Your task to perform on an android device: turn smart compose on in the gmail app Image 0: 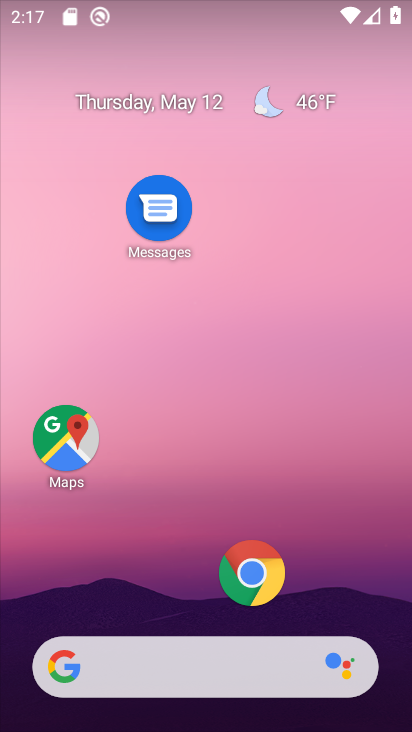
Step 0: click (222, 149)
Your task to perform on an android device: turn smart compose on in the gmail app Image 1: 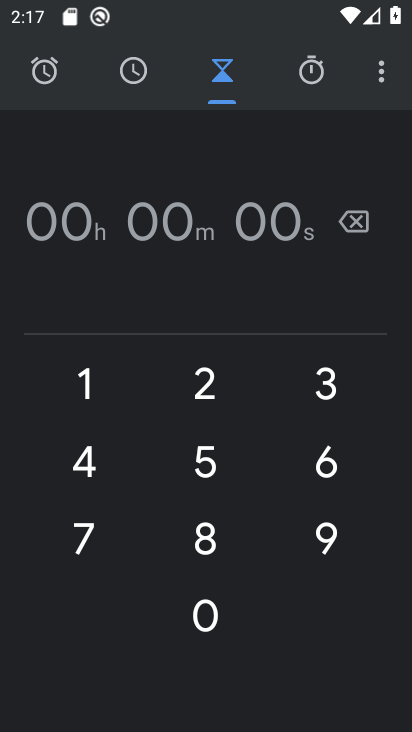
Step 1: press home button
Your task to perform on an android device: turn smart compose on in the gmail app Image 2: 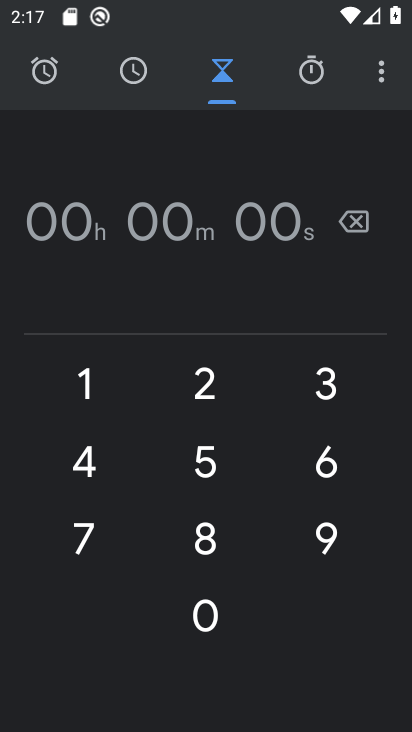
Step 2: press home button
Your task to perform on an android device: turn smart compose on in the gmail app Image 3: 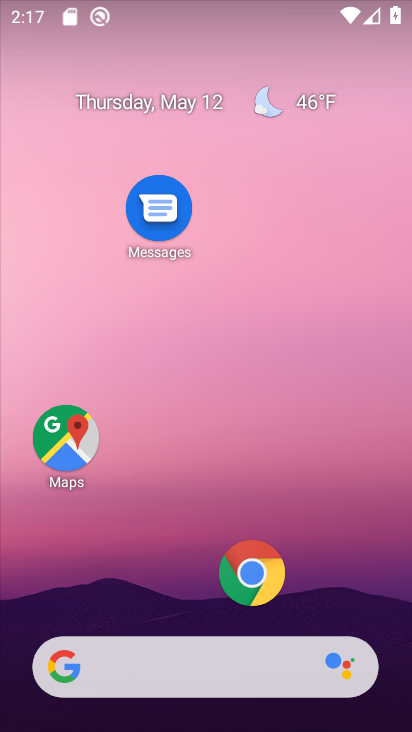
Step 3: drag from (208, 632) to (243, 93)
Your task to perform on an android device: turn smart compose on in the gmail app Image 4: 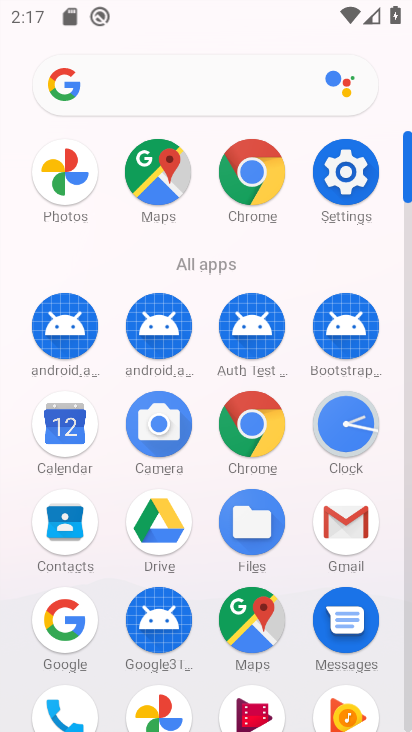
Step 4: click (340, 515)
Your task to perform on an android device: turn smart compose on in the gmail app Image 5: 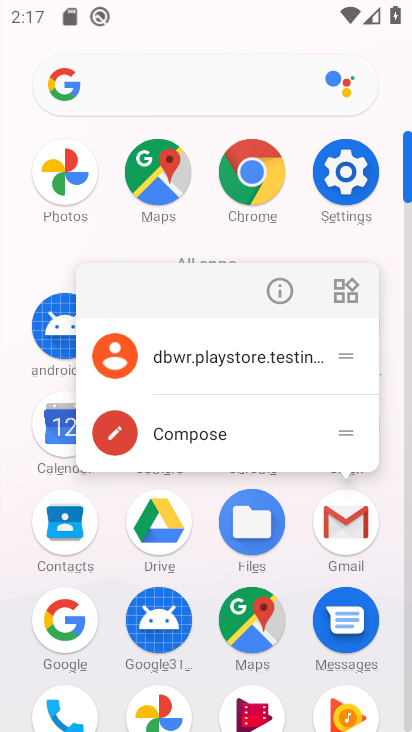
Step 5: click (280, 303)
Your task to perform on an android device: turn smart compose on in the gmail app Image 6: 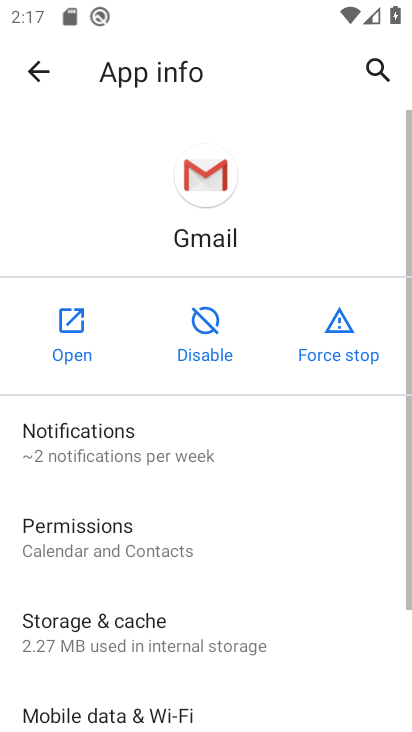
Step 6: click (73, 324)
Your task to perform on an android device: turn smart compose on in the gmail app Image 7: 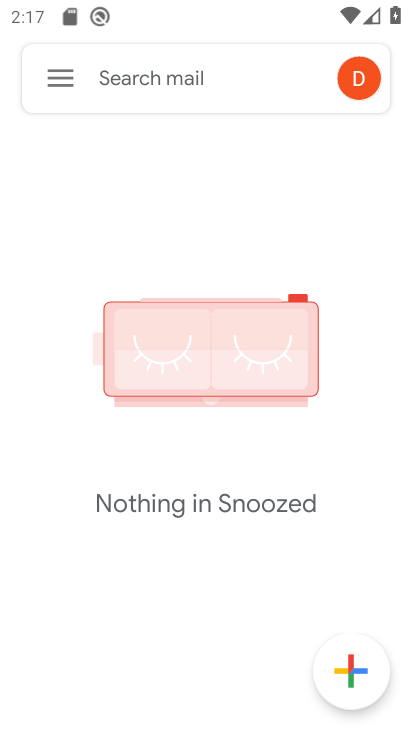
Step 7: click (63, 71)
Your task to perform on an android device: turn smart compose on in the gmail app Image 8: 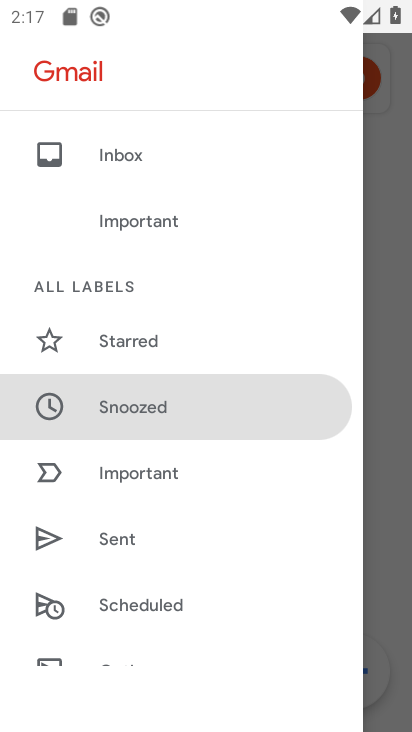
Step 8: drag from (153, 585) to (238, 150)
Your task to perform on an android device: turn smart compose on in the gmail app Image 9: 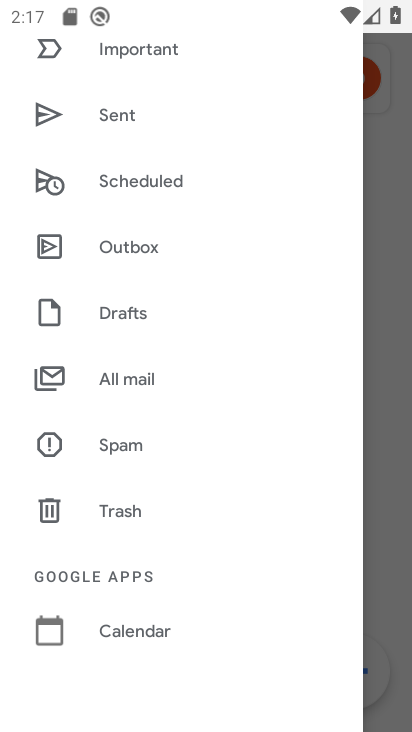
Step 9: drag from (163, 612) to (273, 161)
Your task to perform on an android device: turn smart compose on in the gmail app Image 10: 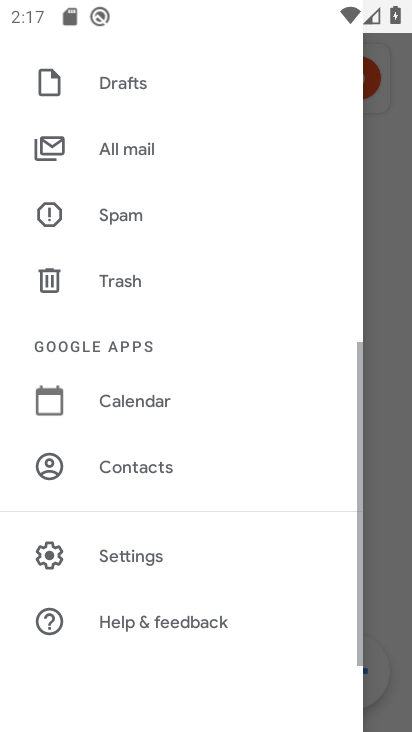
Step 10: click (148, 561)
Your task to perform on an android device: turn smart compose on in the gmail app Image 11: 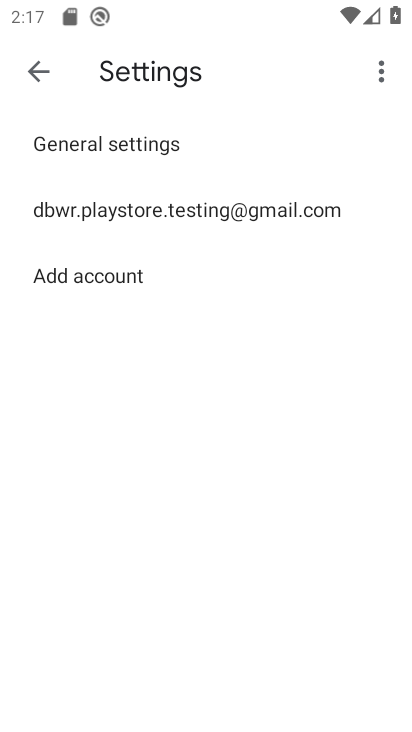
Step 11: drag from (219, 643) to (259, 220)
Your task to perform on an android device: turn smart compose on in the gmail app Image 12: 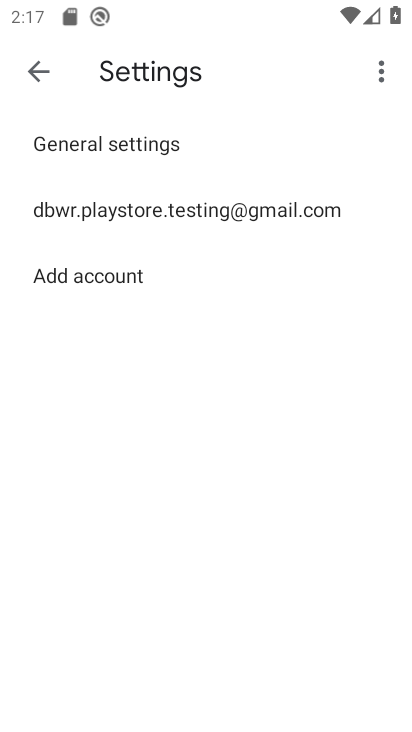
Step 12: click (113, 203)
Your task to perform on an android device: turn smart compose on in the gmail app Image 13: 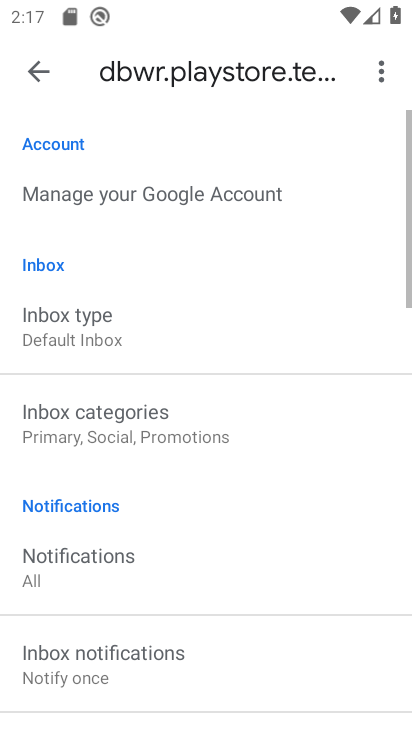
Step 13: task complete